Your task to perform on an android device: Open wifi settings Image 0: 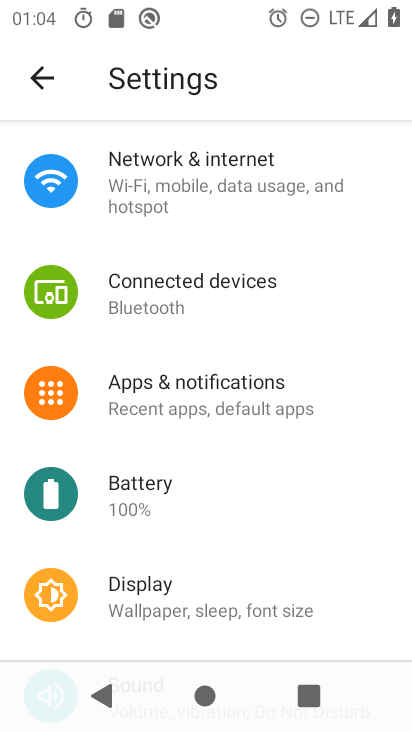
Step 0: click (162, 188)
Your task to perform on an android device: Open wifi settings Image 1: 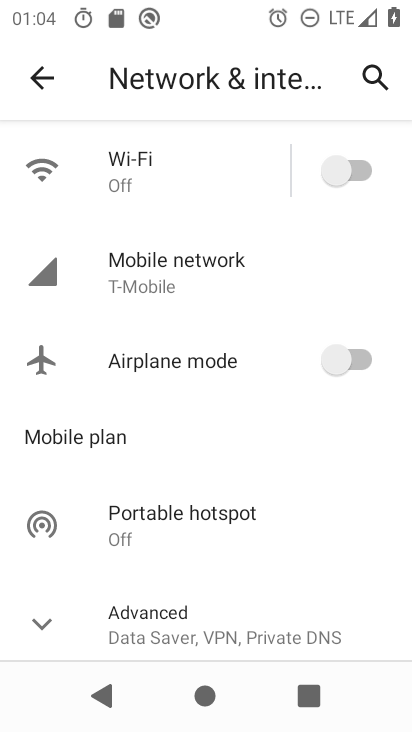
Step 1: click (76, 166)
Your task to perform on an android device: Open wifi settings Image 2: 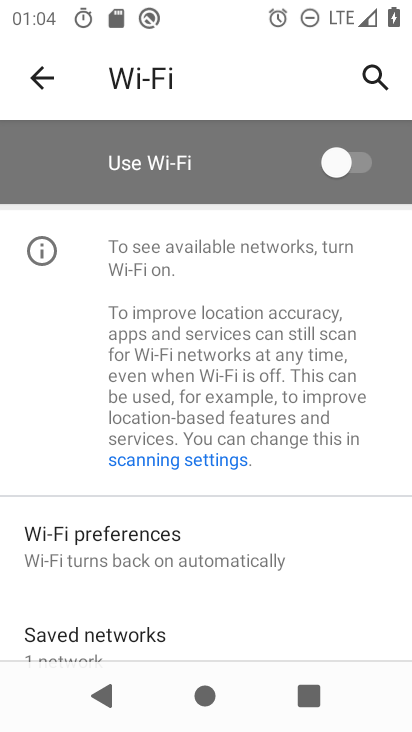
Step 2: task complete